Your task to perform on an android device: Open the calendar and show me this week's events? Image 0: 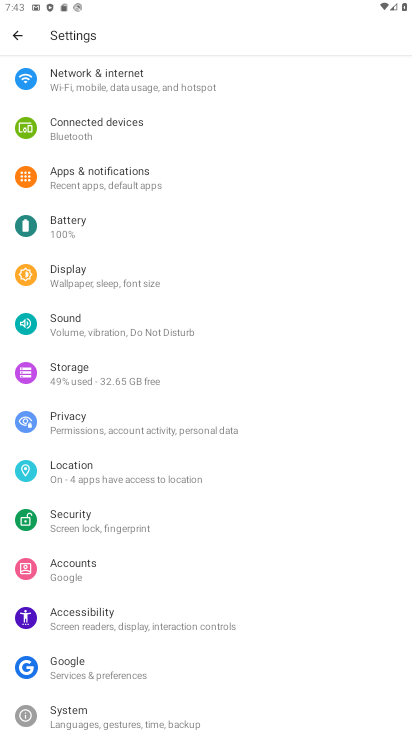
Step 0: press home button
Your task to perform on an android device: Open the calendar and show me this week's events? Image 1: 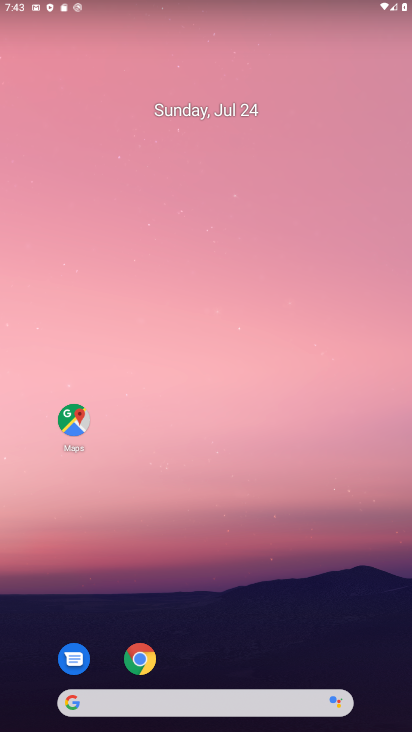
Step 1: drag from (242, 644) to (182, 53)
Your task to perform on an android device: Open the calendar and show me this week's events? Image 2: 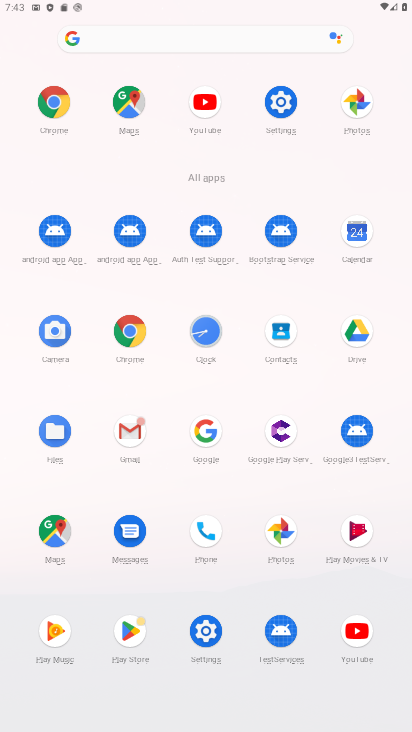
Step 2: click (361, 232)
Your task to perform on an android device: Open the calendar and show me this week's events? Image 3: 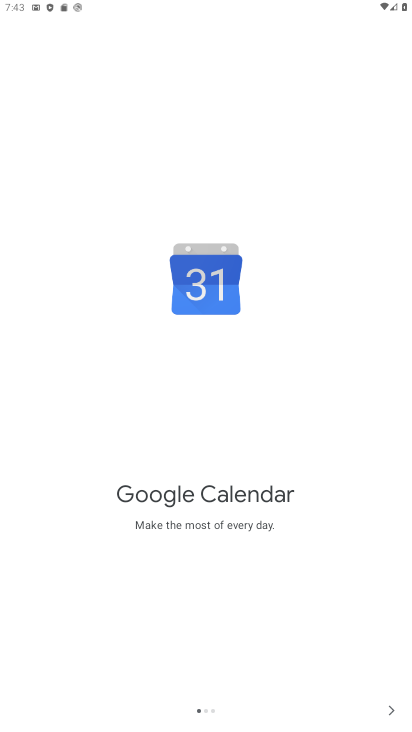
Step 3: click (392, 714)
Your task to perform on an android device: Open the calendar and show me this week's events? Image 4: 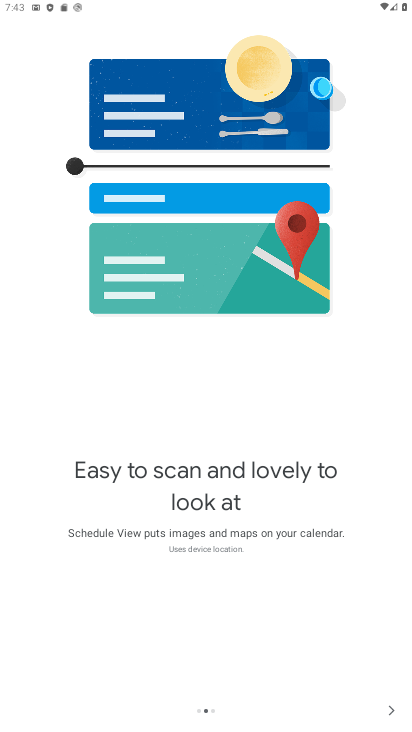
Step 4: click (392, 714)
Your task to perform on an android device: Open the calendar and show me this week's events? Image 5: 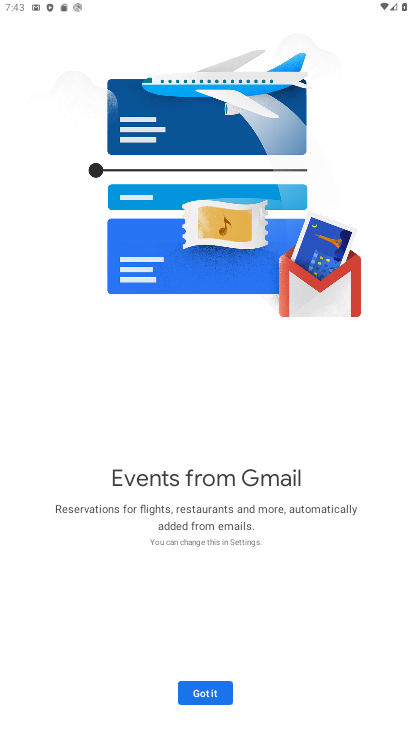
Step 5: click (195, 691)
Your task to perform on an android device: Open the calendar and show me this week's events? Image 6: 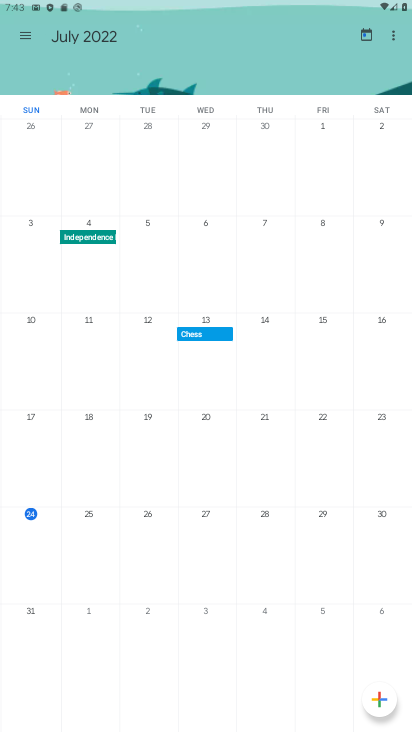
Step 6: click (23, 34)
Your task to perform on an android device: Open the calendar and show me this week's events? Image 7: 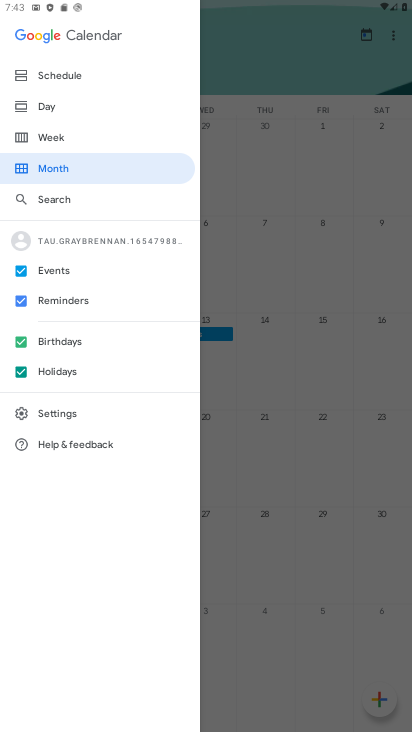
Step 7: click (20, 375)
Your task to perform on an android device: Open the calendar and show me this week's events? Image 8: 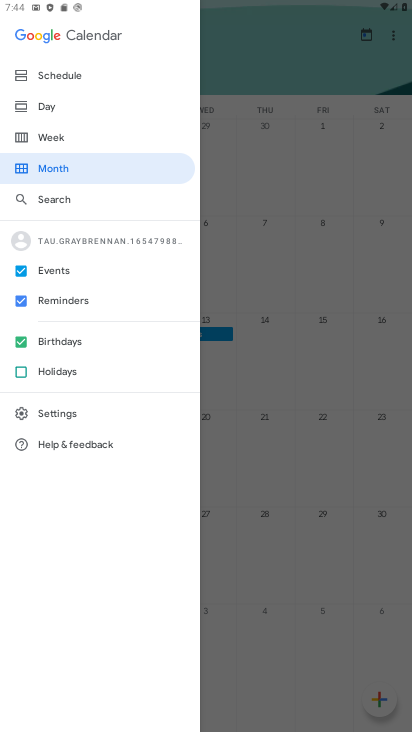
Step 8: click (18, 343)
Your task to perform on an android device: Open the calendar and show me this week's events? Image 9: 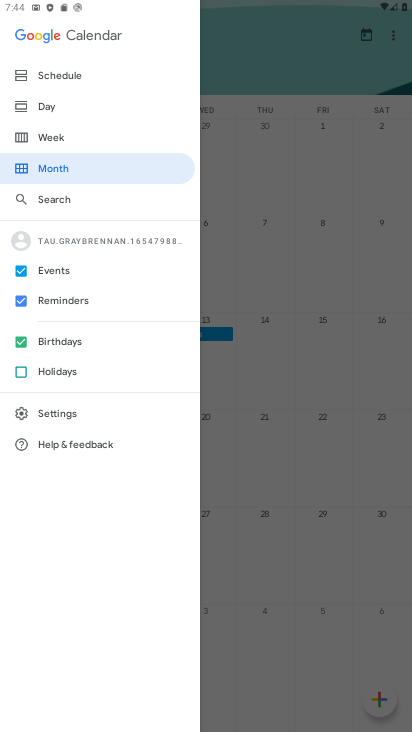
Step 9: click (19, 301)
Your task to perform on an android device: Open the calendar and show me this week's events? Image 10: 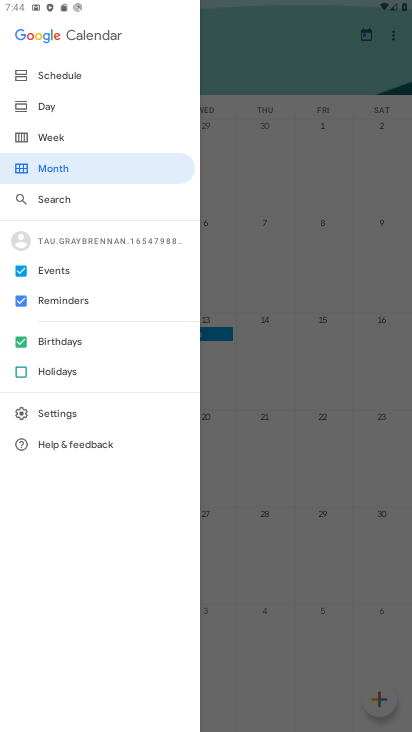
Step 10: click (23, 346)
Your task to perform on an android device: Open the calendar and show me this week's events? Image 11: 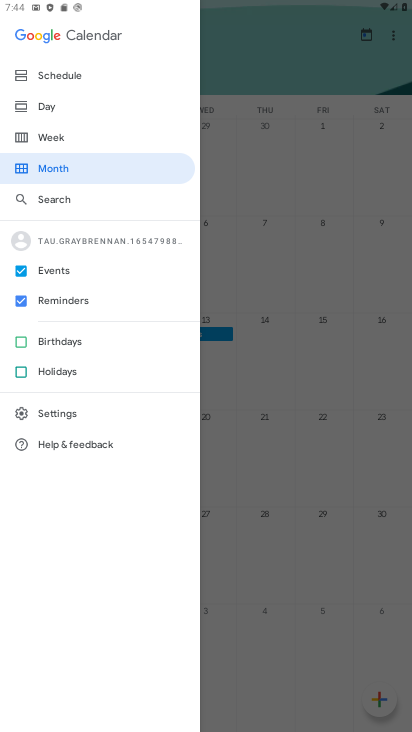
Step 11: click (14, 296)
Your task to perform on an android device: Open the calendar and show me this week's events? Image 12: 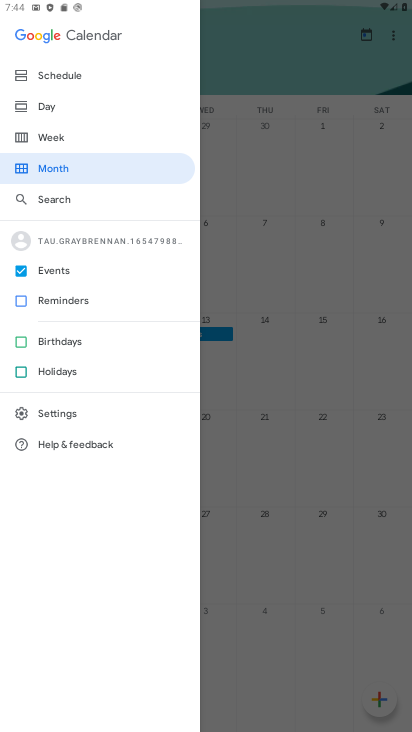
Step 12: click (42, 139)
Your task to perform on an android device: Open the calendar and show me this week's events? Image 13: 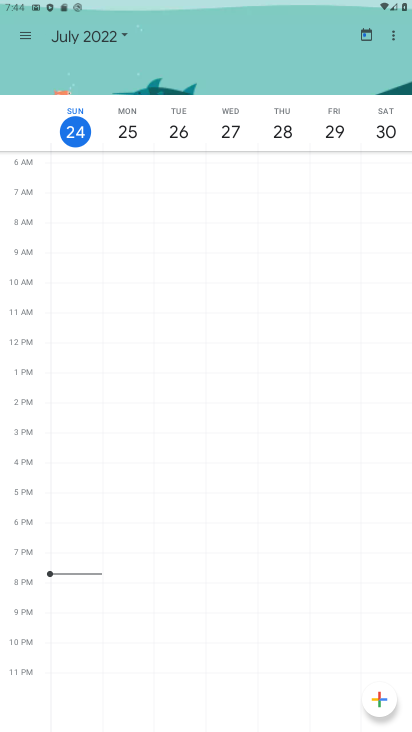
Step 13: task complete